Your task to perform on an android device: turn on bluetooth scan Image 0: 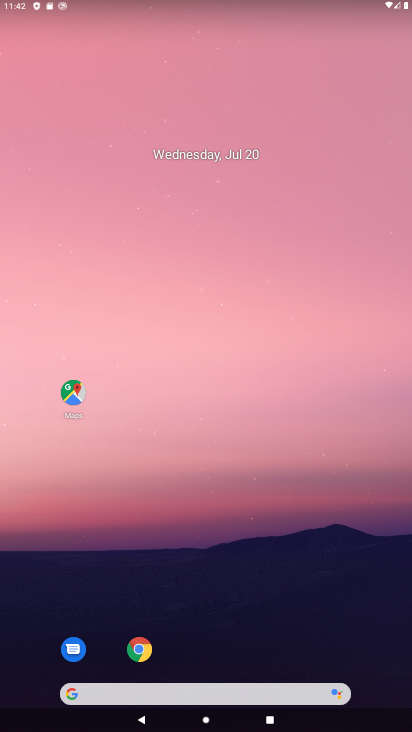
Step 0: click (293, 643)
Your task to perform on an android device: turn on bluetooth scan Image 1: 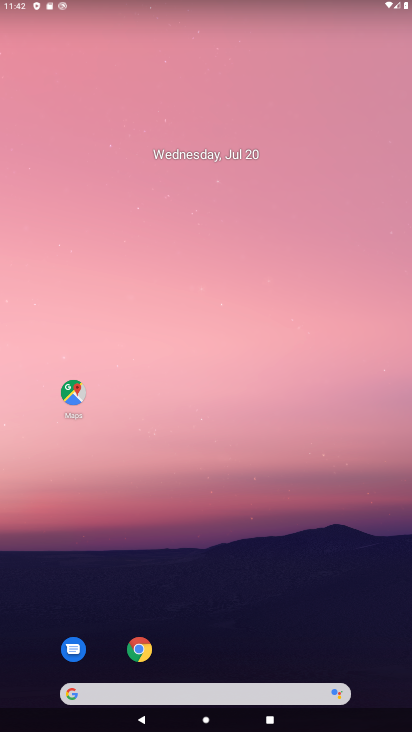
Step 1: drag from (293, 643) to (256, 235)
Your task to perform on an android device: turn on bluetooth scan Image 2: 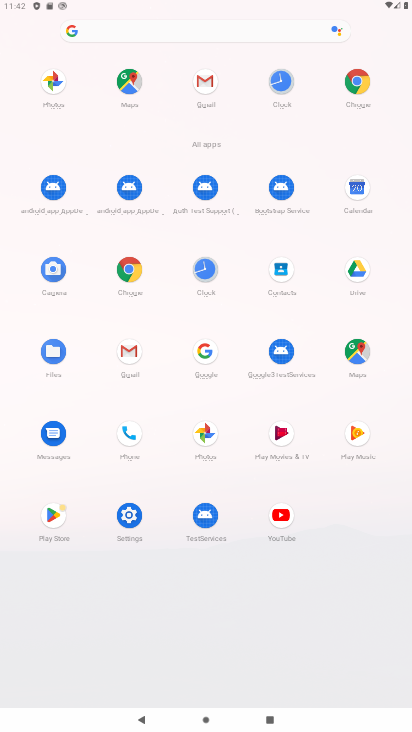
Step 2: click (135, 525)
Your task to perform on an android device: turn on bluetooth scan Image 3: 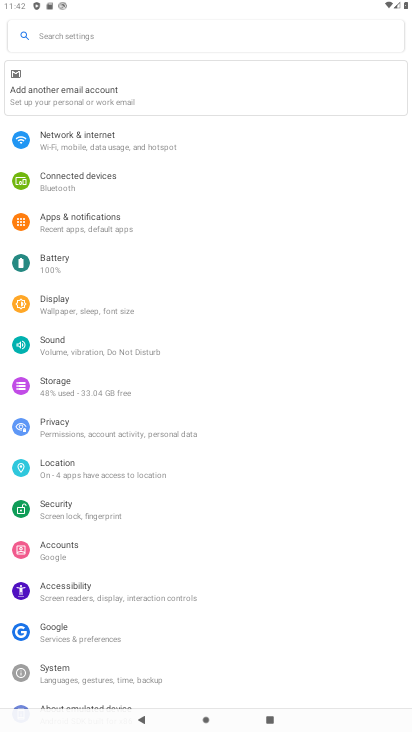
Step 3: click (105, 454)
Your task to perform on an android device: turn on bluetooth scan Image 4: 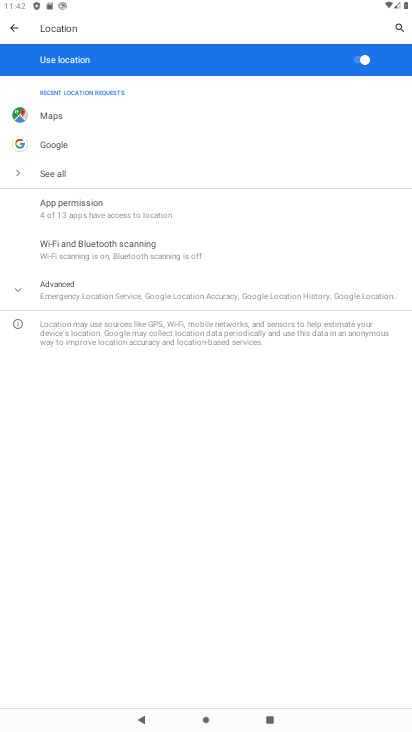
Step 4: task complete